Your task to perform on an android device: change notification settings in the gmail app Image 0: 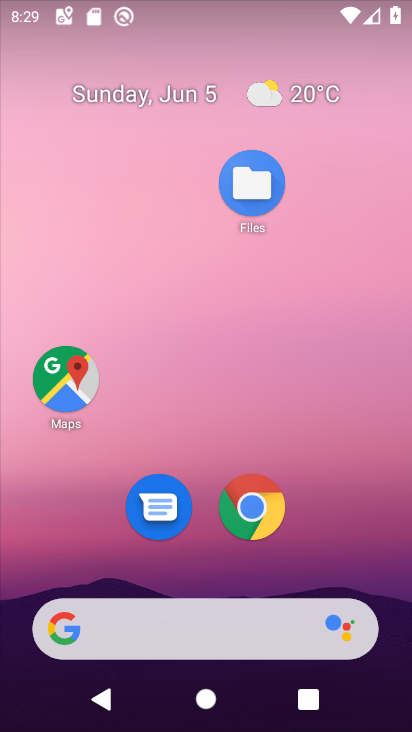
Step 0: drag from (242, 585) to (202, 32)
Your task to perform on an android device: change notification settings in the gmail app Image 1: 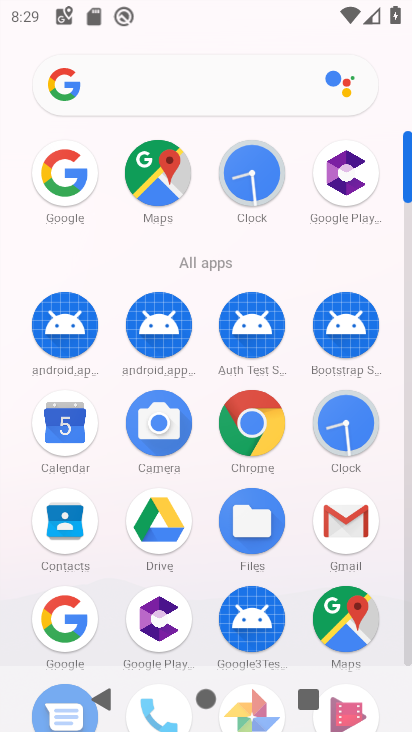
Step 1: click (328, 503)
Your task to perform on an android device: change notification settings in the gmail app Image 2: 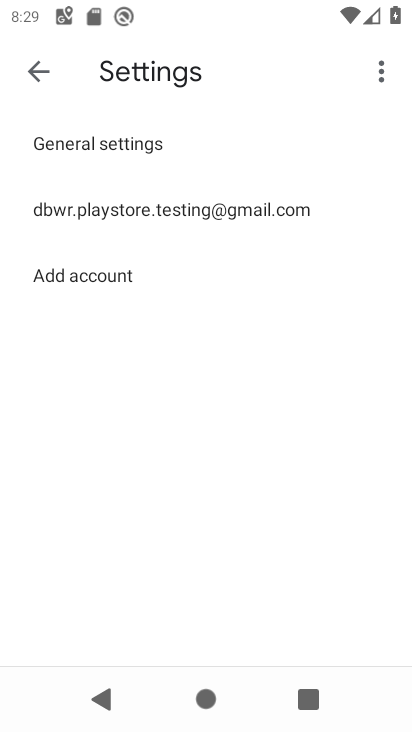
Step 2: click (101, 149)
Your task to perform on an android device: change notification settings in the gmail app Image 3: 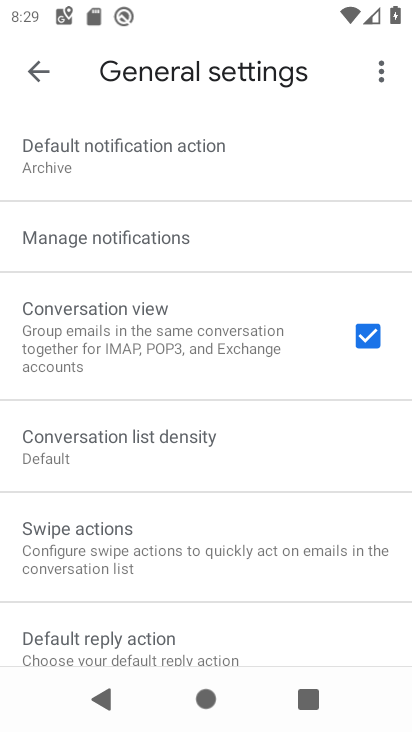
Step 3: click (95, 247)
Your task to perform on an android device: change notification settings in the gmail app Image 4: 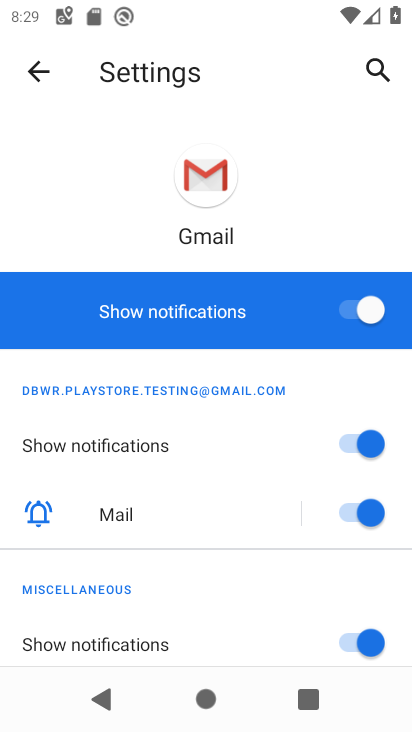
Step 4: click (345, 304)
Your task to perform on an android device: change notification settings in the gmail app Image 5: 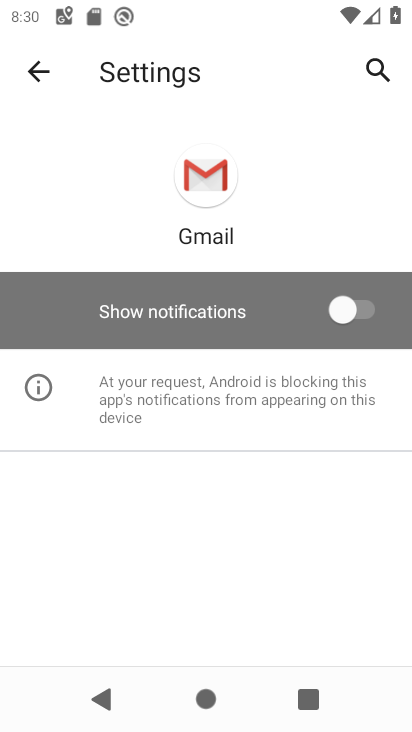
Step 5: task complete